Your task to perform on an android device: toggle sleep mode Image 0: 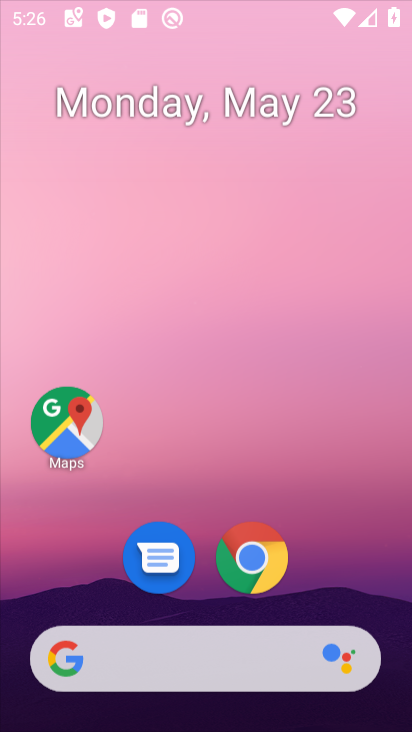
Step 0: drag from (301, 419) to (311, 10)
Your task to perform on an android device: toggle sleep mode Image 1: 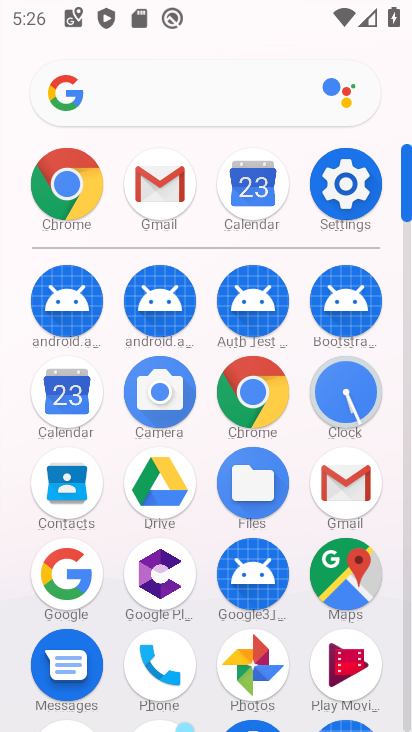
Step 1: click (350, 199)
Your task to perform on an android device: toggle sleep mode Image 2: 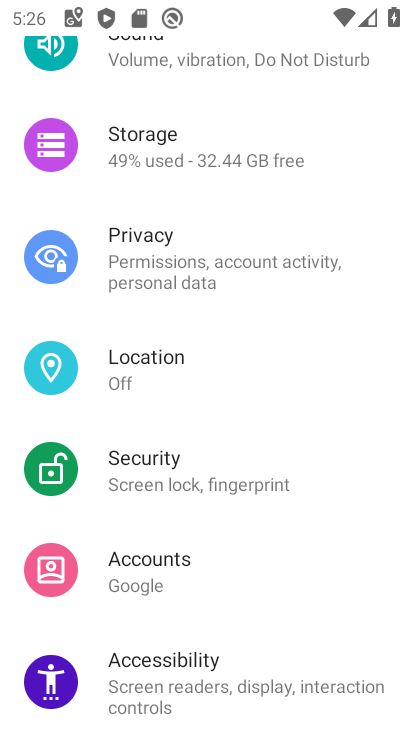
Step 2: drag from (207, 150) to (264, 582)
Your task to perform on an android device: toggle sleep mode Image 3: 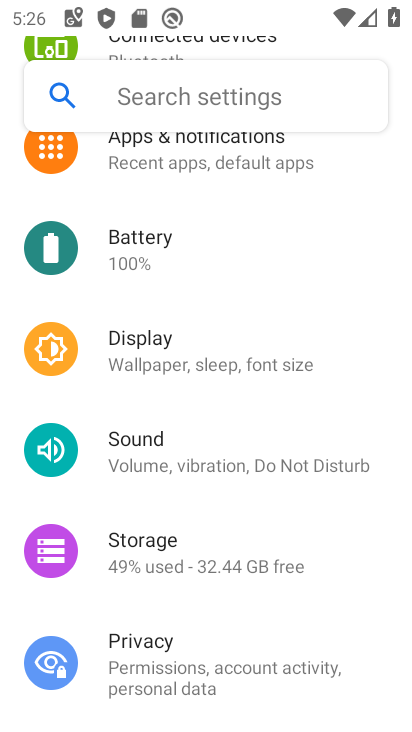
Step 3: click (196, 355)
Your task to perform on an android device: toggle sleep mode Image 4: 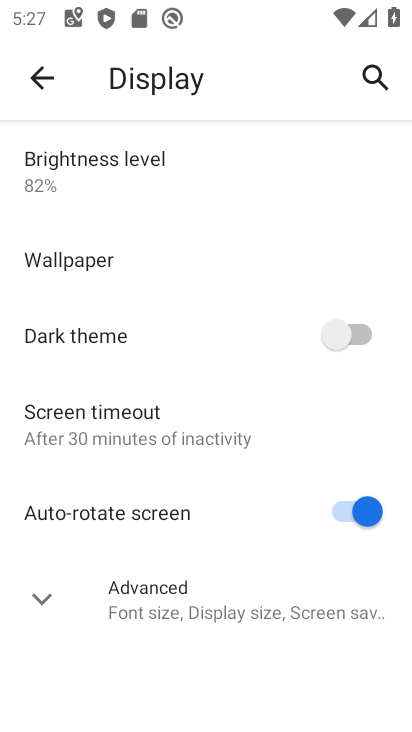
Step 4: task complete